Your task to perform on an android device: Go to Yahoo.com Image 0: 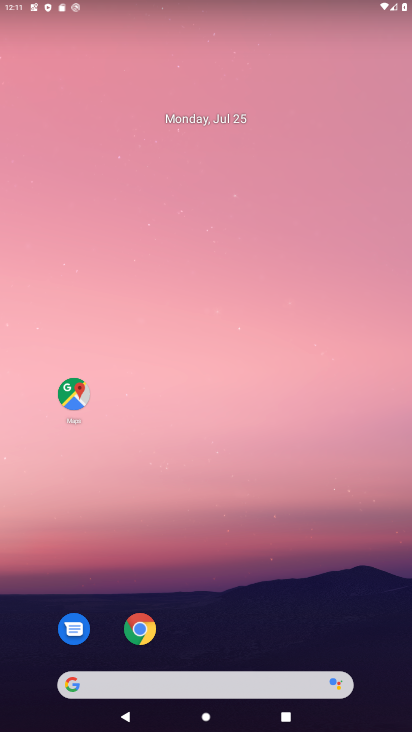
Step 0: click (140, 626)
Your task to perform on an android device: Go to Yahoo.com Image 1: 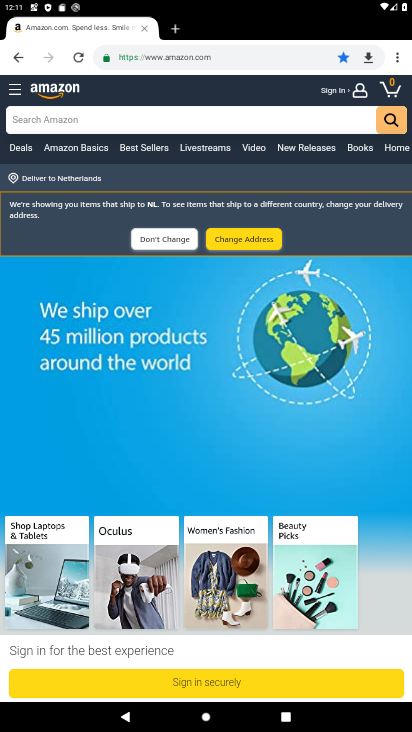
Step 1: click (176, 28)
Your task to perform on an android device: Go to Yahoo.com Image 2: 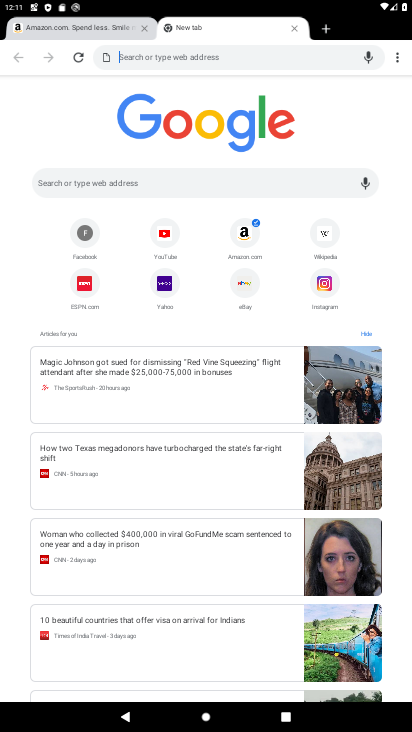
Step 2: click (170, 281)
Your task to perform on an android device: Go to Yahoo.com Image 3: 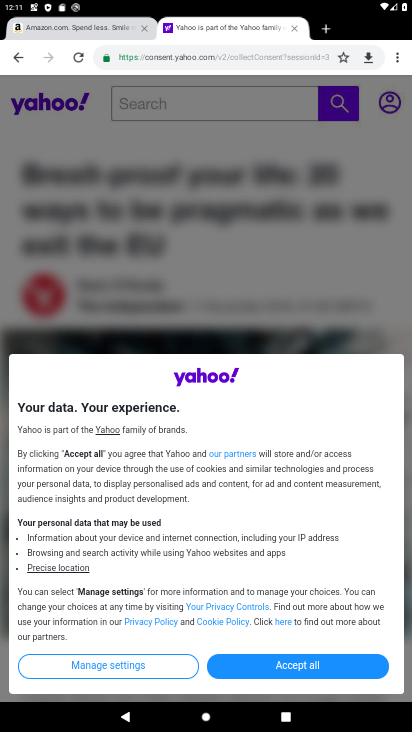
Step 3: task complete